Your task to perform on an android device: turn off wifi Image 0: 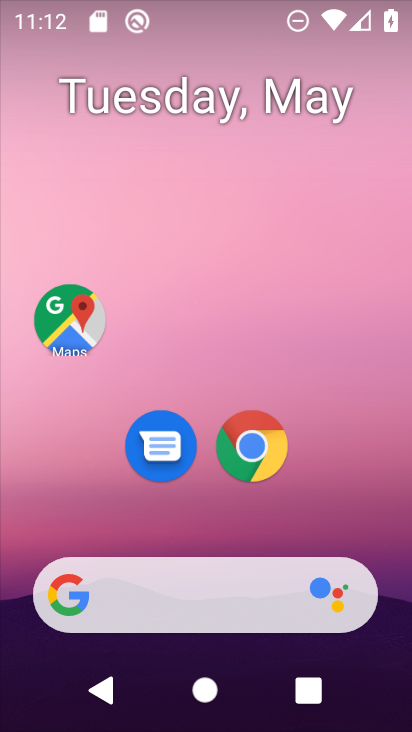
Step 0: drag from (235, 518) to (254, 121)
Your task to perform on an android device: turn off wifi Image 1: 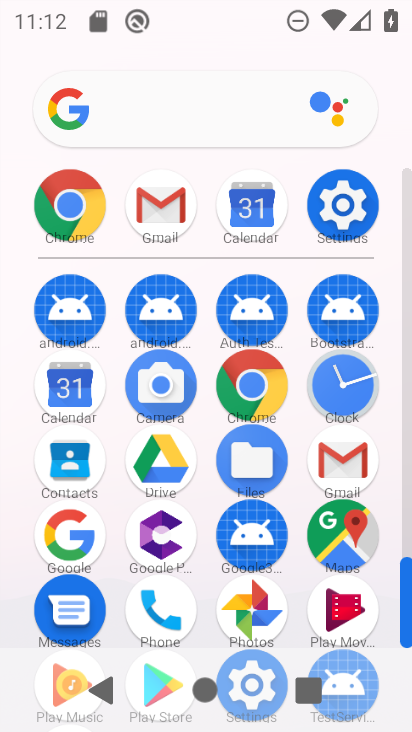
Step 1: click (362, 205)
Your task to perform on an android device: turn off wifi Image 2: 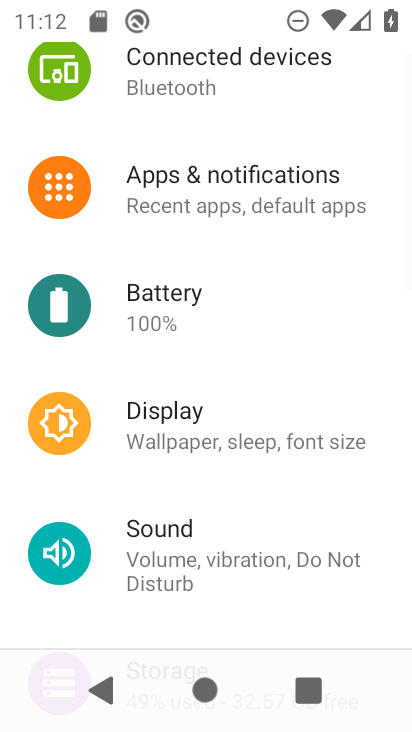
Step 2: drag from (226, 183) to (204, 637)
Your task to perform on an android device: turn off wifi Image 3: 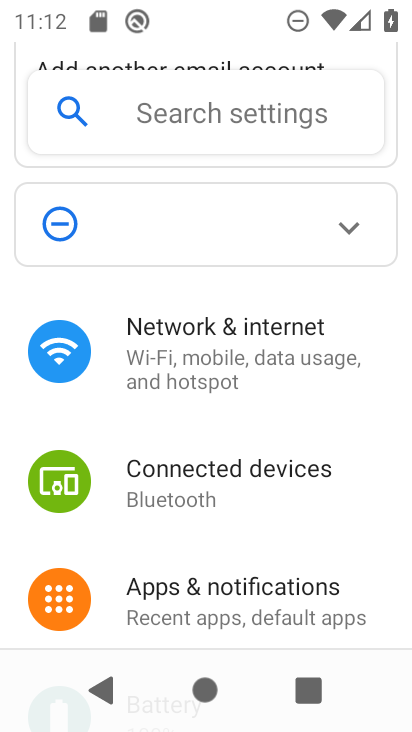
Step 3: click (195, 356)
Your task to perform on an android device: turn off wifi Image 4: 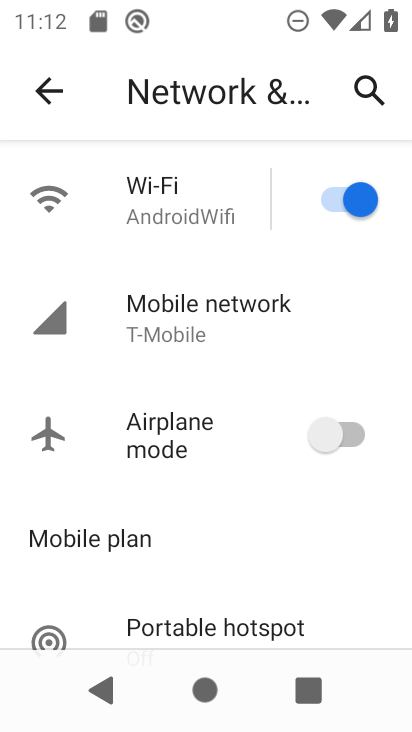
Step 4: click (310, 201)
Your task to perform on an android device: turn off wifi Image 5: 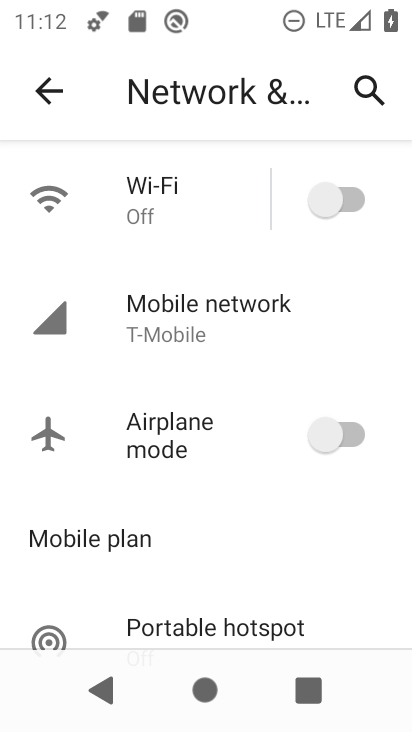
Step 5: task complete